Your task to perform on an android device: open sync settings in chrome Image 0: 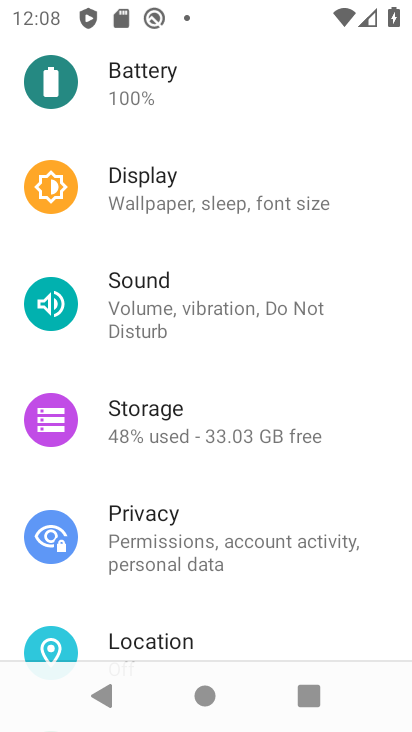
Step 0: press back button
Your task to perform on an android device: open sync settings in chrome Image 1: 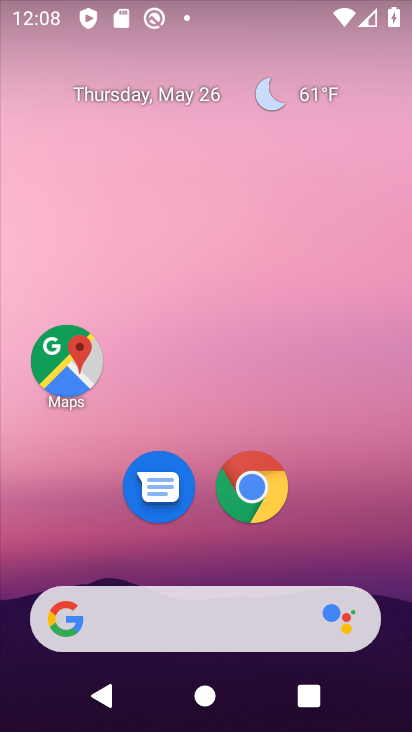
Step 1: drag from (269, 651) to (227, 264)
Your task to perform on an android device: open sync settings in chrome Image 2: 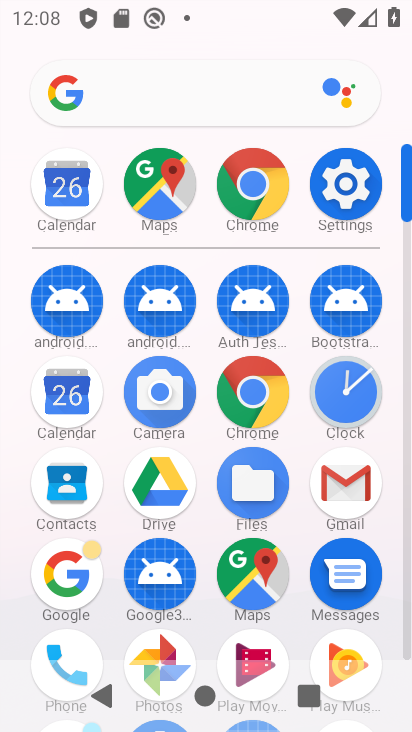
Step 2: click (242, 392)
Your task to perform on an android device: open sync settings in chrome Image 3: 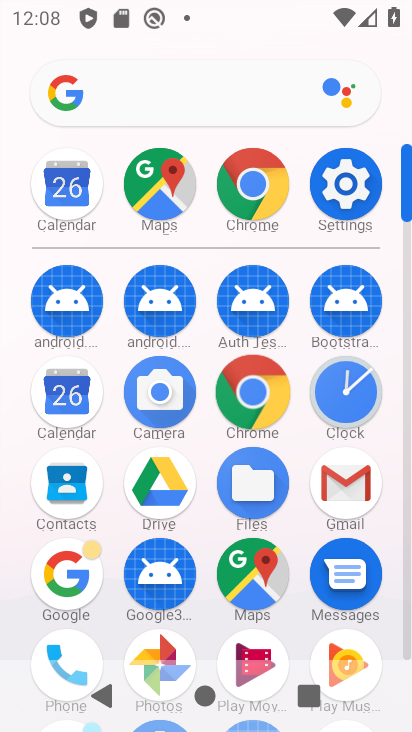
Step 3: click (242, 392)
Your task to perform on an android device: open sync settings in chrome Image 4: 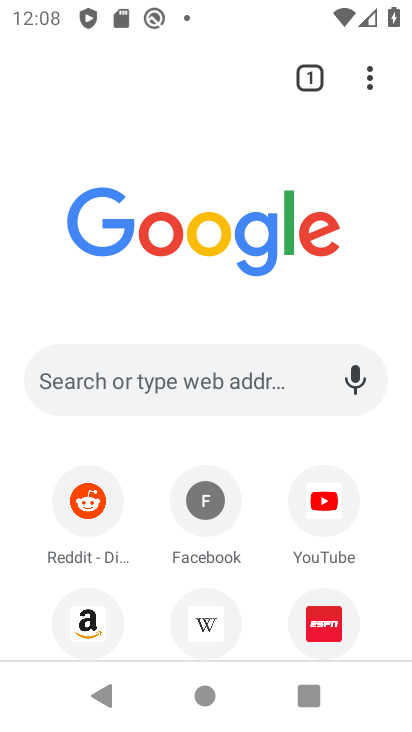
Step 4: drag from (365, 82) to (76, 547)
Your task to perform on an android device: open sync settings in chrome Image 5: 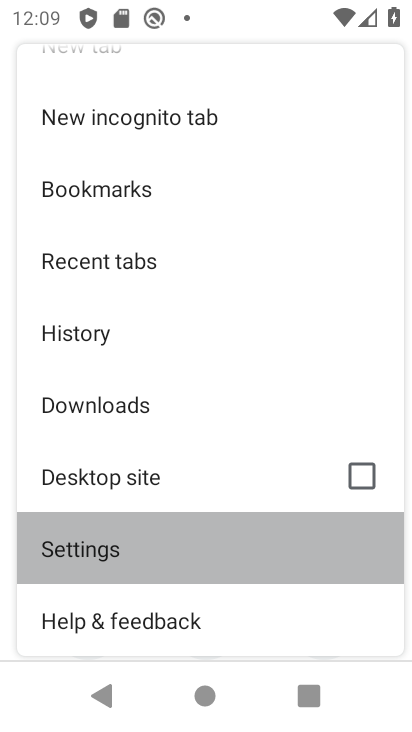
Step 5: click (76, 547)
Your task to perform on an android device: open sync settings in chrome Image 6: 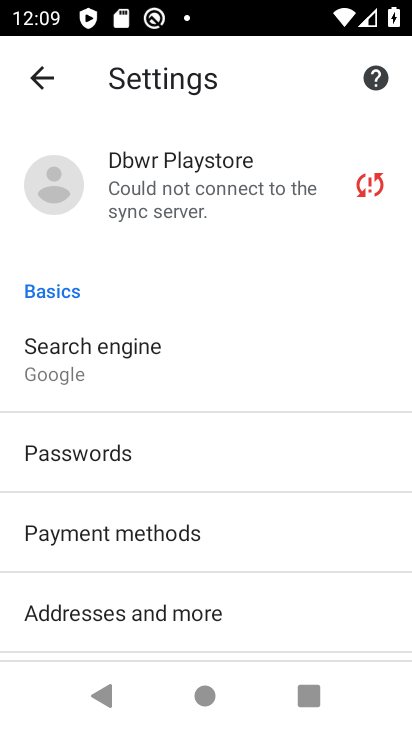
Step 6: drag from (193, 526) to (189, 161)
Your task to perform on an android device: open sync settings in chrome Image 7: 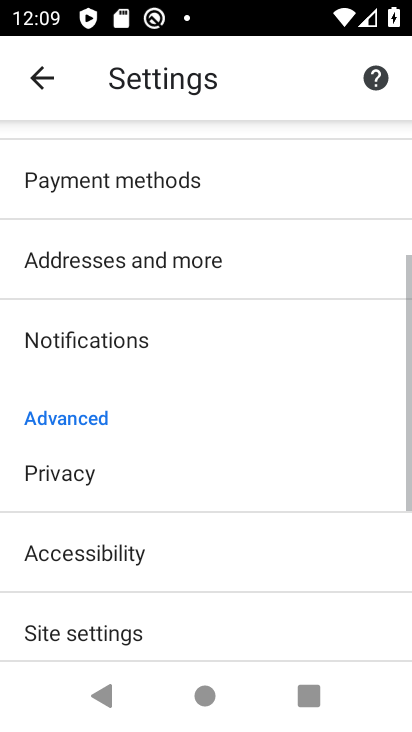
Step 7: drag from (228, 217) to (228, 169)
Your task to perform on an android device: open sync settings in chrome Image 8: 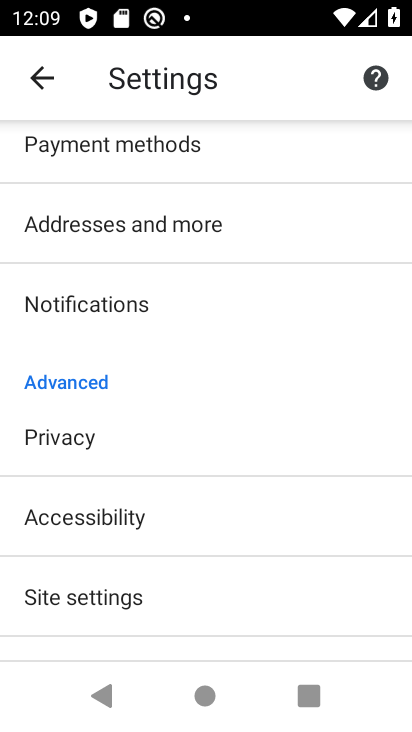
Step 8: click (67, 593)
Your task to perform on an android device: open sync settings in chrome Image 9: 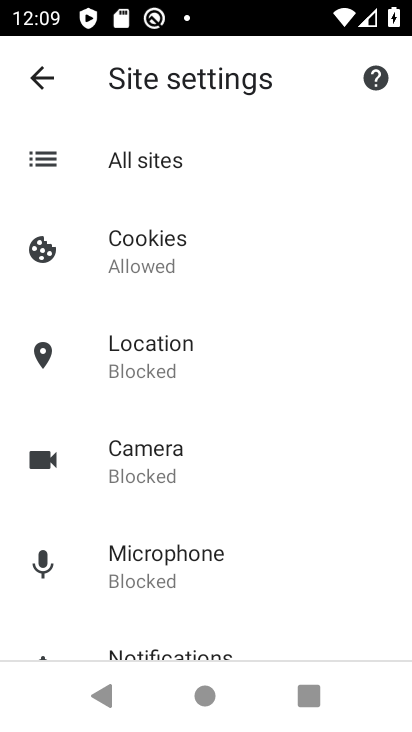
Step 9: drag from (228, 445) to (228, 216)
Your task to perform on an android device: open sync settings in chrome Image 10: 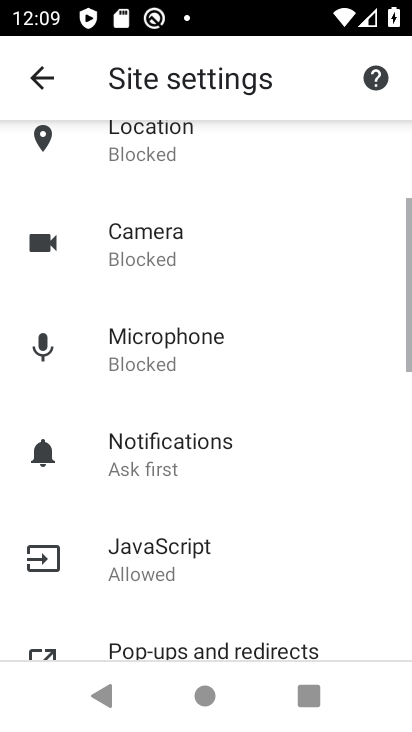
Step 10: drag from (200, 406) to (196, 166)
Your task to perform on an android device: open sync settings in chrome Image 11: 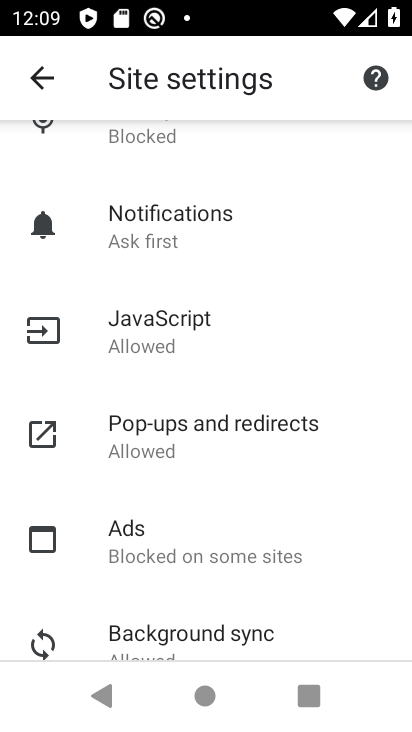
Step 11: drag from (193, 453) to (174, 208)
Your task to perform on an android device: open sync settings in chrome Image 12: 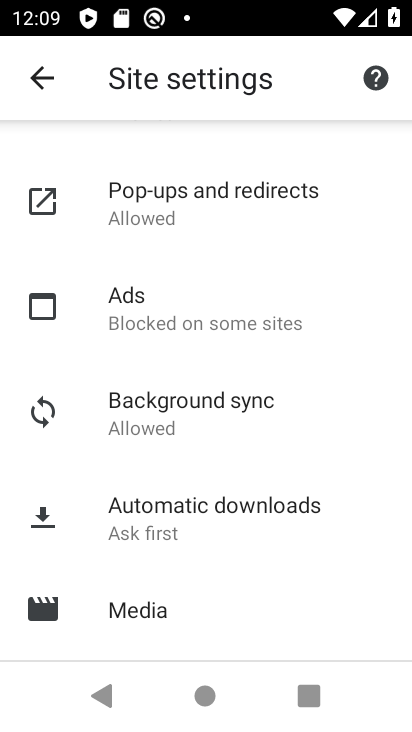
Step 12: click (168, 404)
Your task to perform on an android device: open sync settings in chrome Image 13: 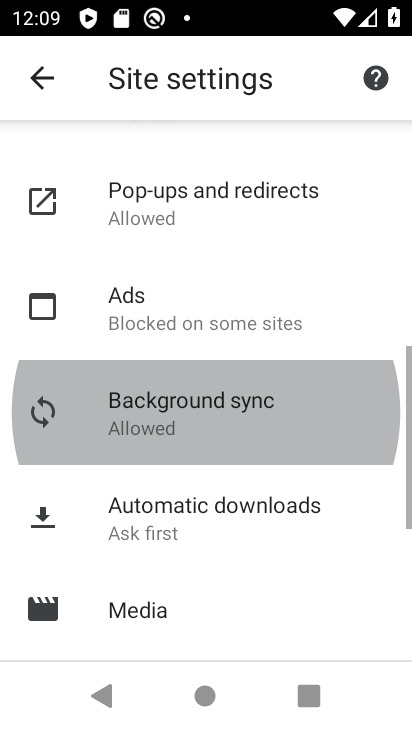
Step 13: click (168, 399)
Your task to perform on an android device: open sync settings in chrome Image 14: 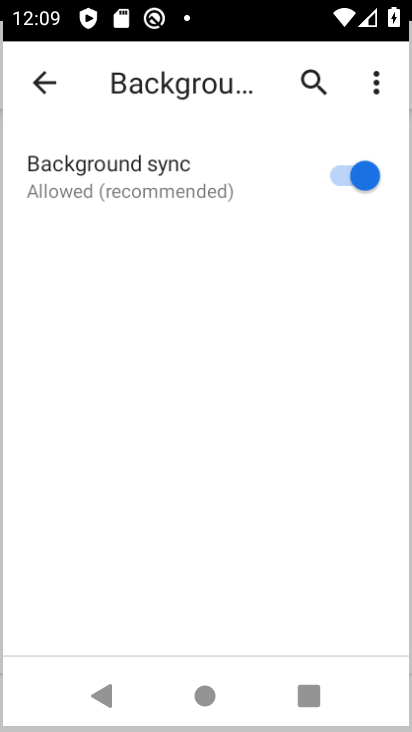
Step 14: click (168, 399)
Your task to perform on an android device: open sync settings in chrome Image 15: 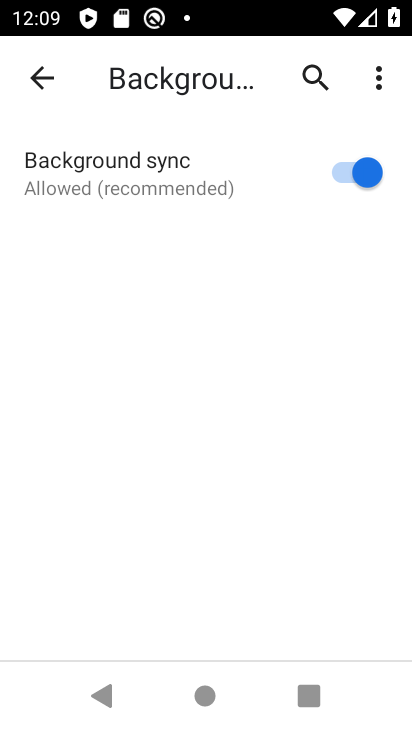
Step 15: task complete